Your task to perform on an android device: Show me productivity apps on the Play Store Image 0: 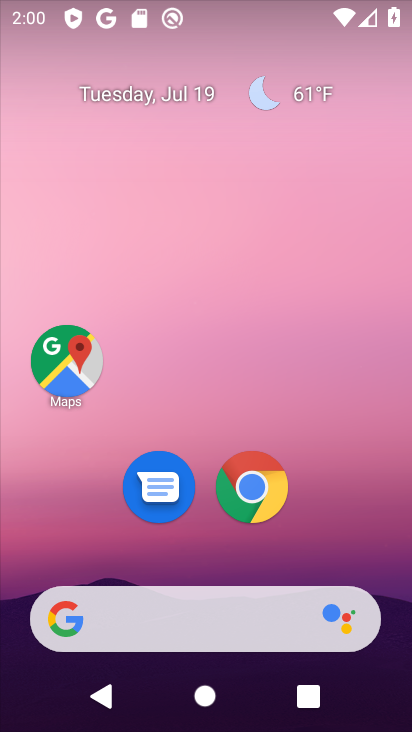
Step 0: drag from (236, 478) to (327, 7)
Your task to perform on an android device: Show me productivity apps on the Play Store Image 1: 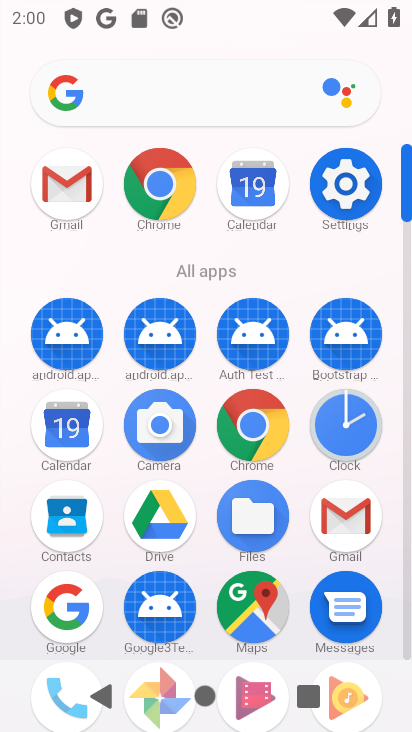
Step 1: drag from (170, 565) to (252, 163)
Your task to perform on an android device: Show me productivity apps on the Play Store Image 2: 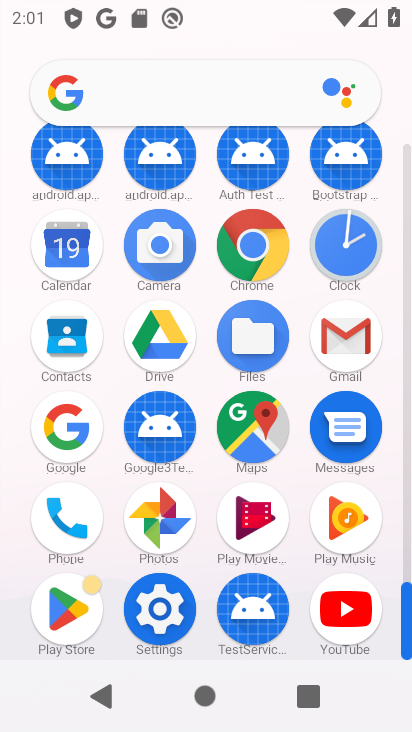
Step 2: click (63, 628)
Your task to perform on an android device: Show me productivity apps on the Play Store Image 3: 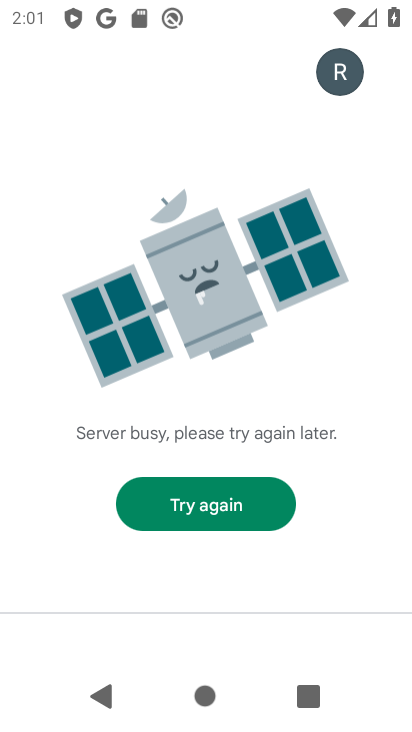
Step 3: task complete